Your task to perform on an android device: check battery use Image 0: 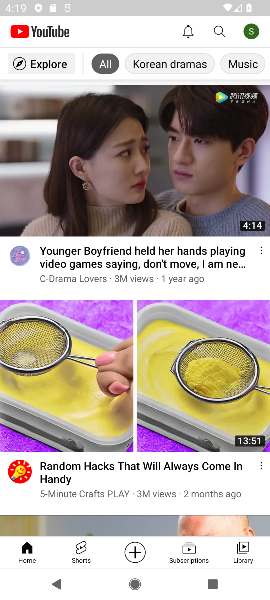
Step 0: press home button
Your task to perform on an android device: check battery use Image 1: 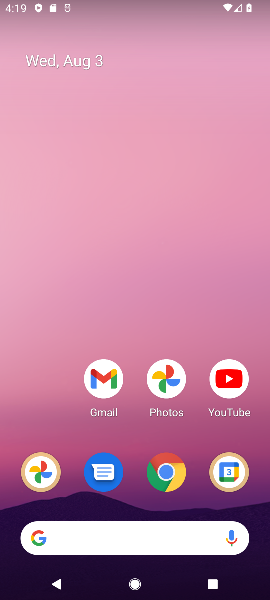
Step 1: drag from (29, 418) to (88, 43)
Your task to perform on an android device: check battery use Image 2: 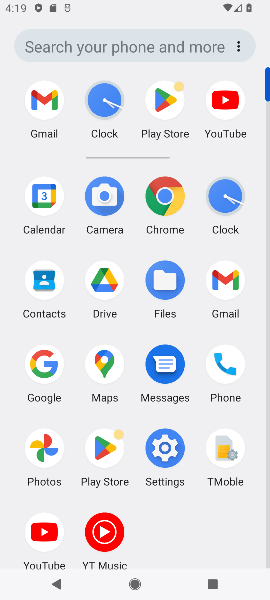
Step 2: click (166, 441)
Your task to perform on an android device: check battery use Image 3: 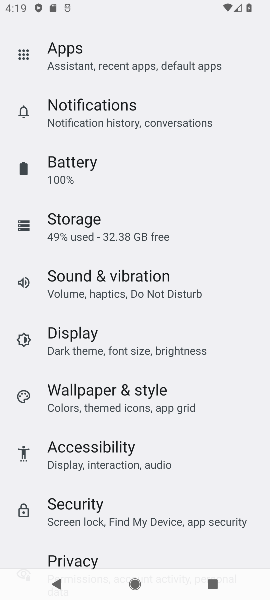
Step 3: click (92, 162)
Your task to perform on an android device: check battery use Image 4: 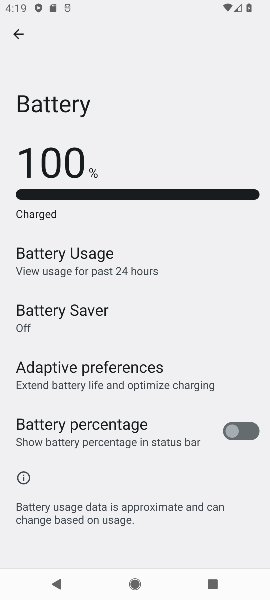
Step 4: drag from (143, 473) to (150, 110)
Your task to perform on an android device: check battery use Image 5: 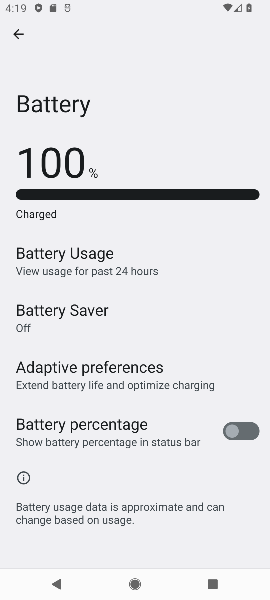
Step 5: click (102, 269)
Your task to perform on an android device: check battery use Image 6: 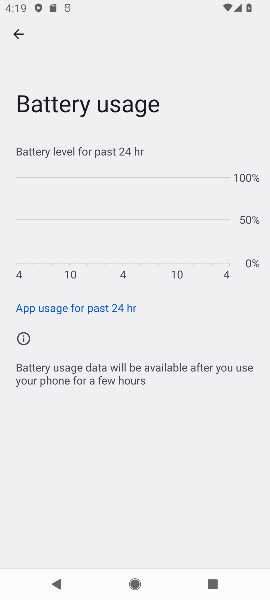
Step 6: task complete